Your task to perform on an android device: change the clock display to digital Image 0: 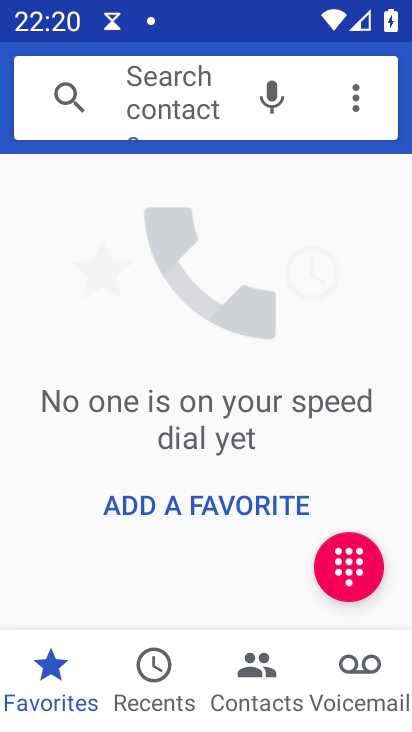
Step 0: press home button
Your task to perform on an android device: change the clock display to digital Image 1: 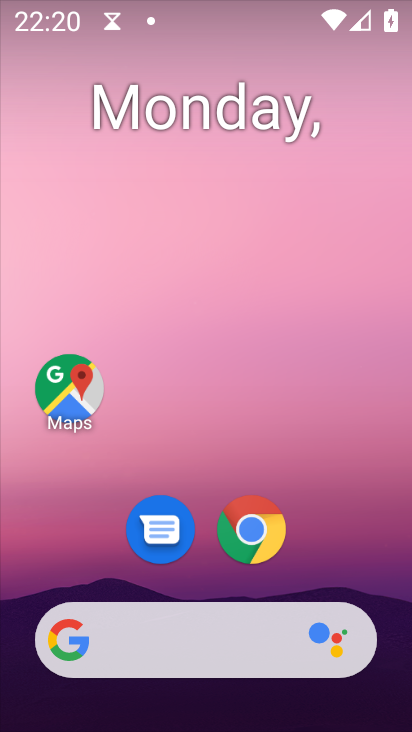
Step 1: drag from (326, 535) to (302, 103)
Your task to perform on an android device: change the clock display to digital Image 2: 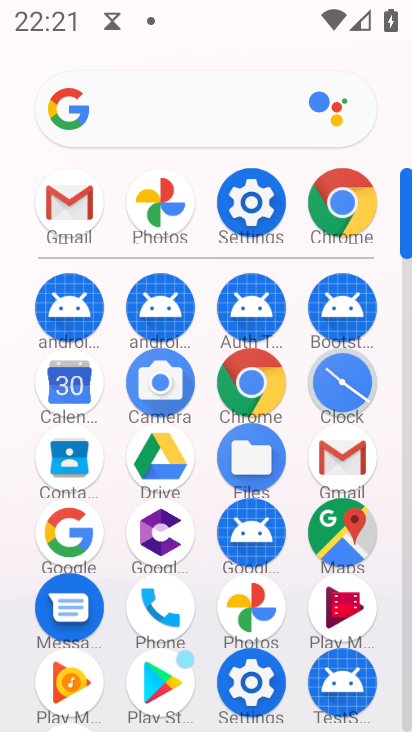
Step 2: click (342, 381)
Your task to perform on an android device: change the clock display to digital Image 3: 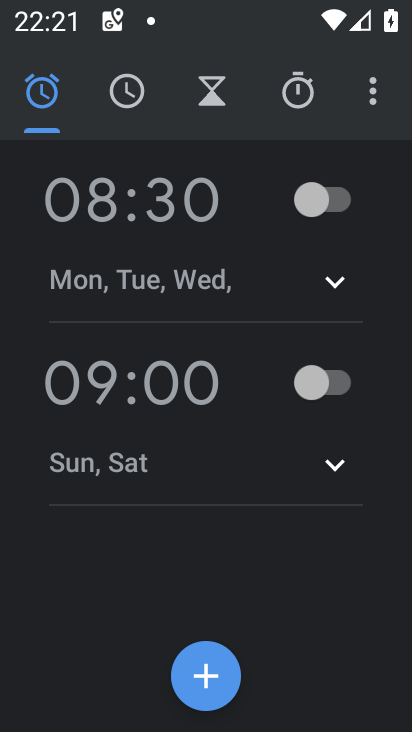
Step 3: click (375, 89)
Your task to perform on an android device: change the clock display to digital Image 4: 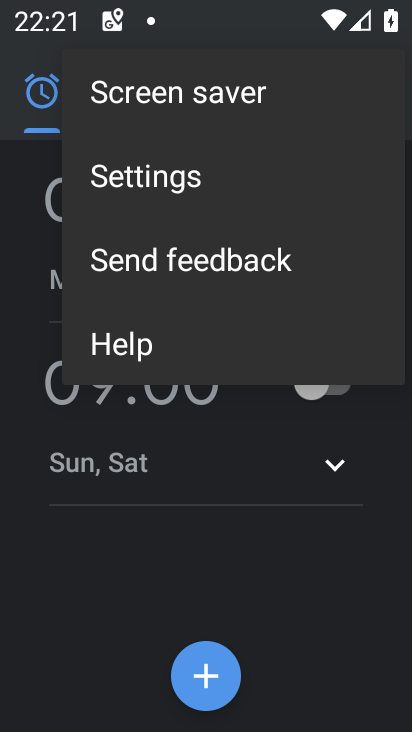
Step 4: click (182, 186)
Your task to perform on an android device: change the clock display to digital Image 5: 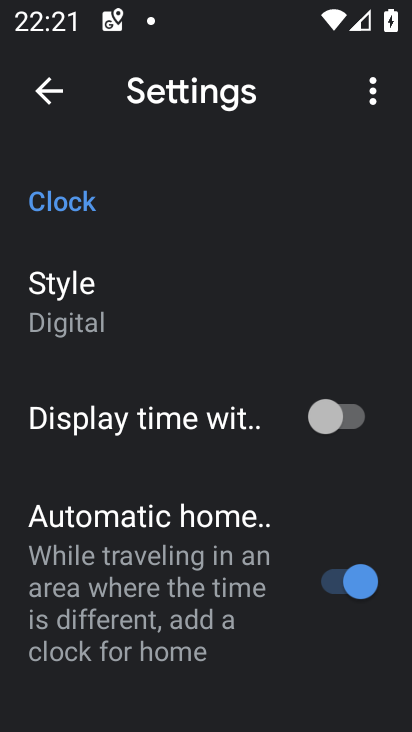
Step 5: click (90, 324)
Your task to perform on an android device: change the clock display to digital Image 6: 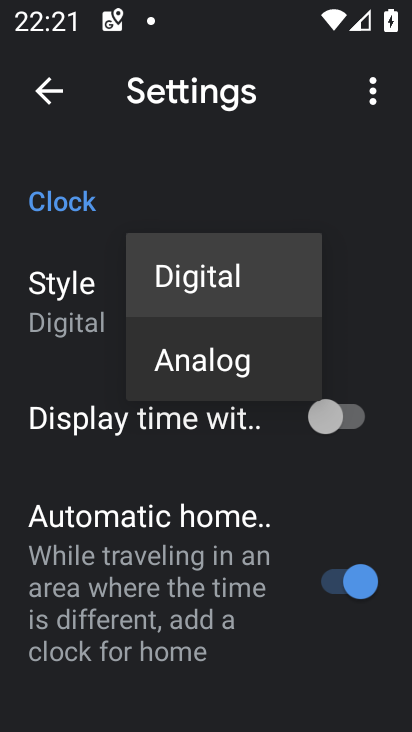
Step 6: click (178, 295)
Your task to perform on an android device: change the clock display to digital Image 7: 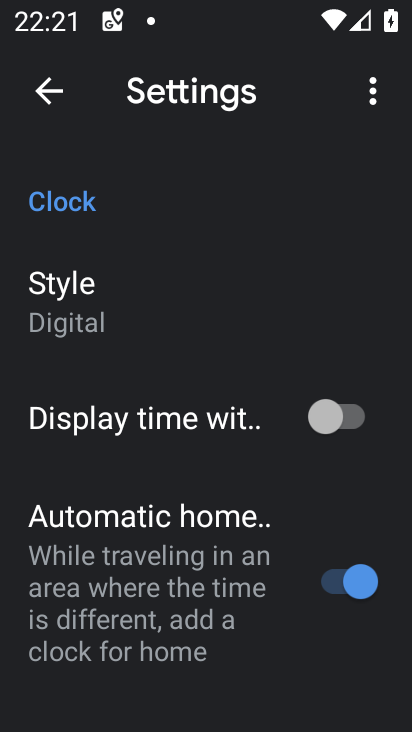
Step 7: task complete